Your task to perform on an android device: turn vacation reply on in the gmail app Image 0: 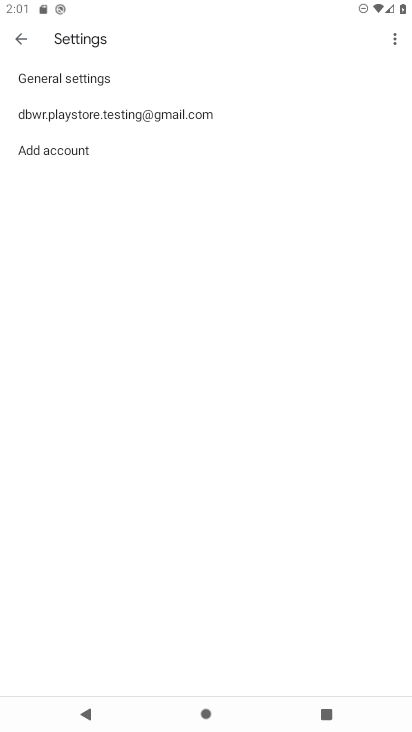
Step 0: press home button
Your task to perform on an android device: turn vacation reply on in the gmail app Image 1: 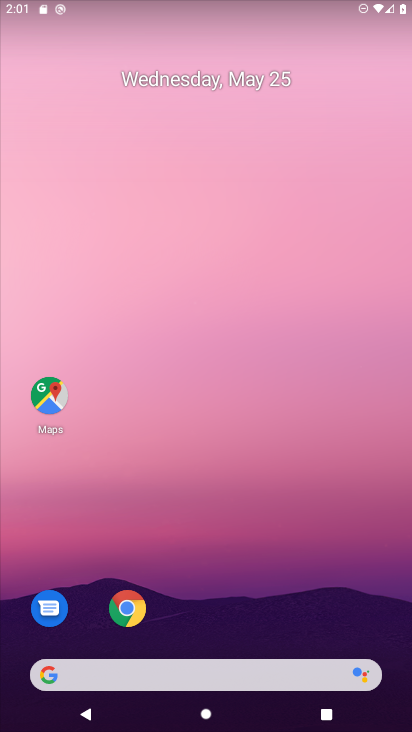
Step 1: drag from (343, 623) to (325, 22)
Your task to perform on an android device: turn vacation reply on in the gmail app Image 2: 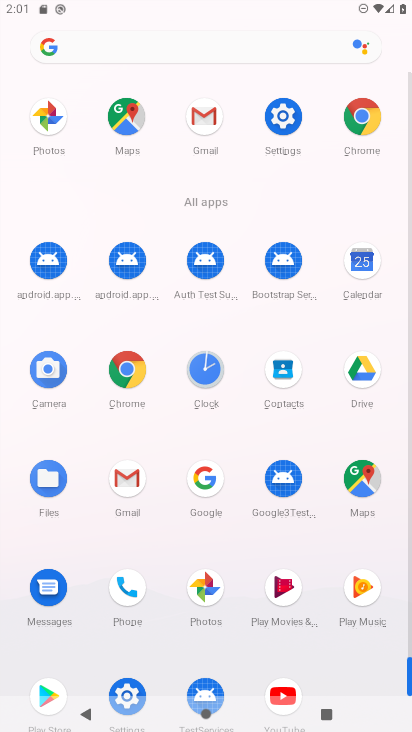
Step 2: click (128, 479)
Your task to perform on an android device: turn vacation reply on in the gmail app Image 3: 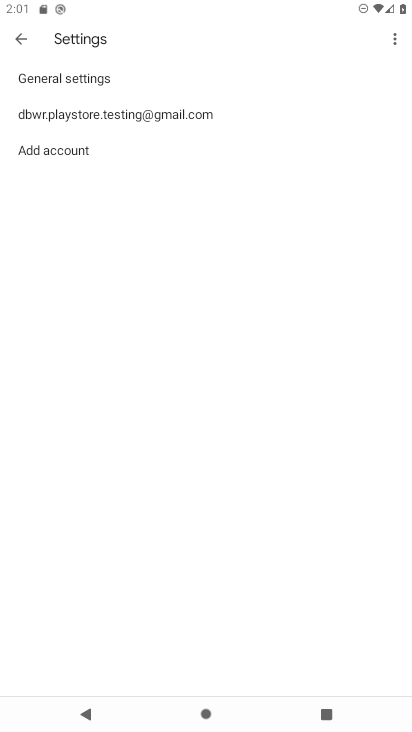
Step 3: click (123, 107)
Your task to perform on an android device: turn vacation reply on in the gmail app Image 4: 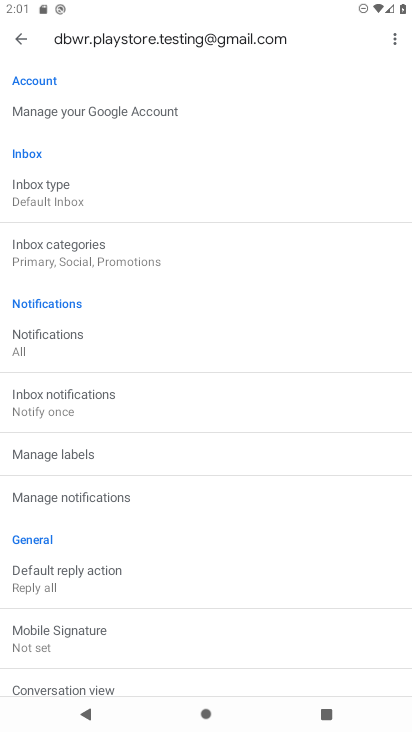
Step 4: drag from (132, 652) to (210, 185)
Your task to perform on an android device: turn vacation reply on in the gmail app Image 5: 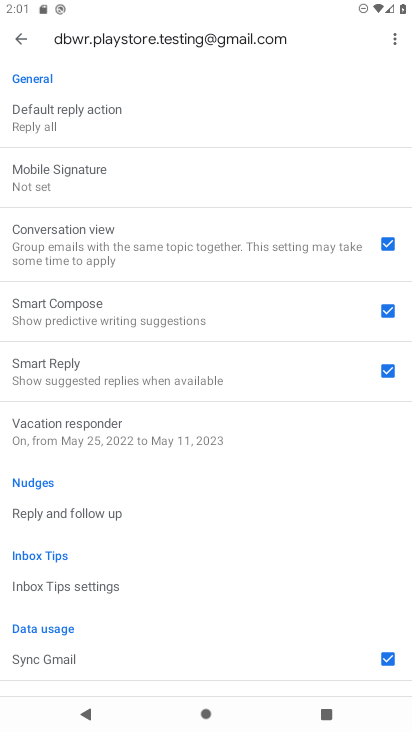
Step 5: click (105, 436)
Your task to perform on an android device: turn vacation reply on in the gmail app Image 6: 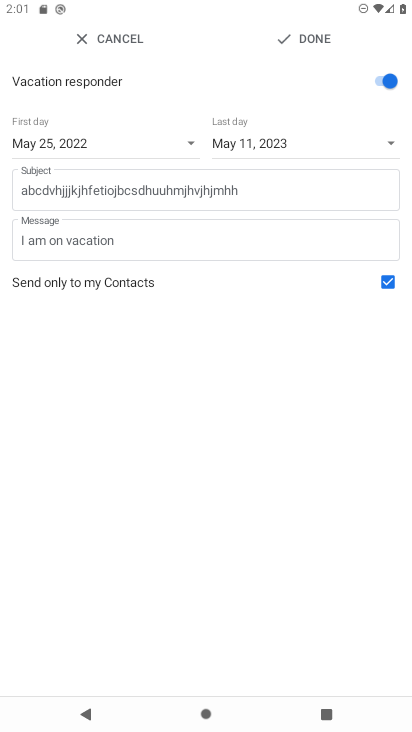
Step 6: task complete